Your task to perform on an android device: see tabs open on other devices in the chrome app Image 0: 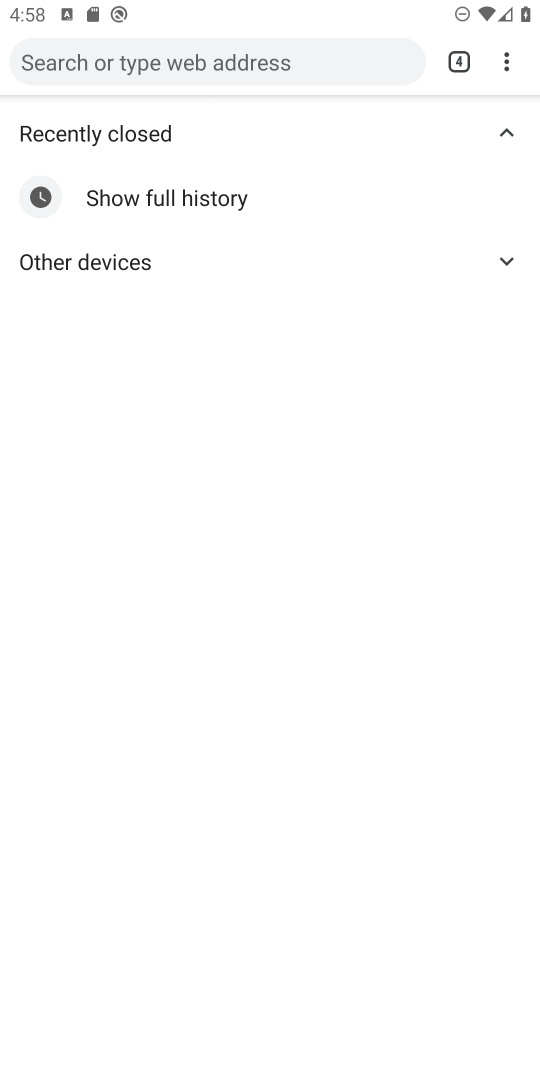
Step 0: press home button
Your task to perform on an android device: see tabs open on other devices in the chrome app Image 1: 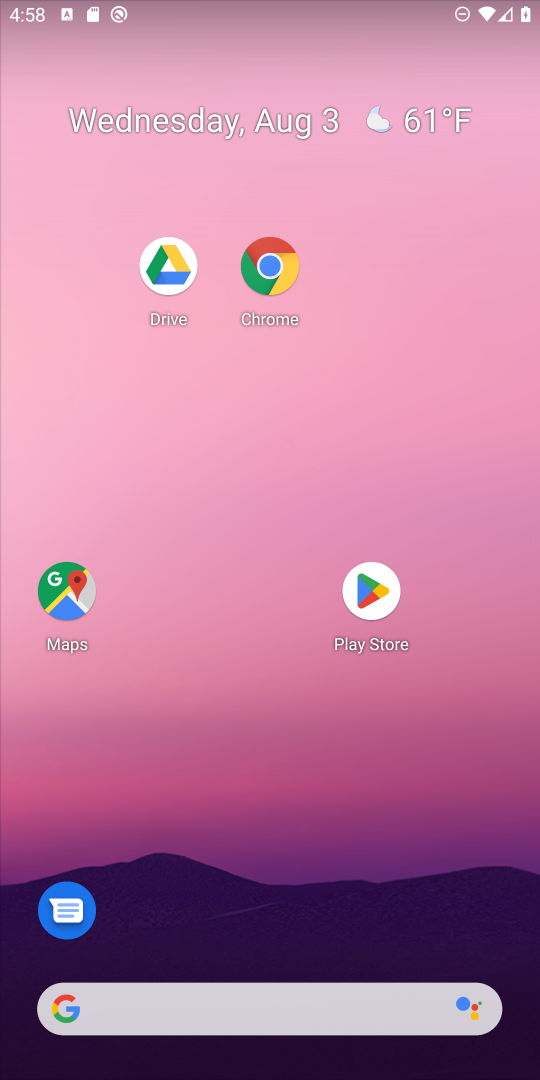
Step 1: drag from (249, 1024) to (461, 0)
Your task to perform on an android device: see tabs open on other devices in the chrome app Image 2: 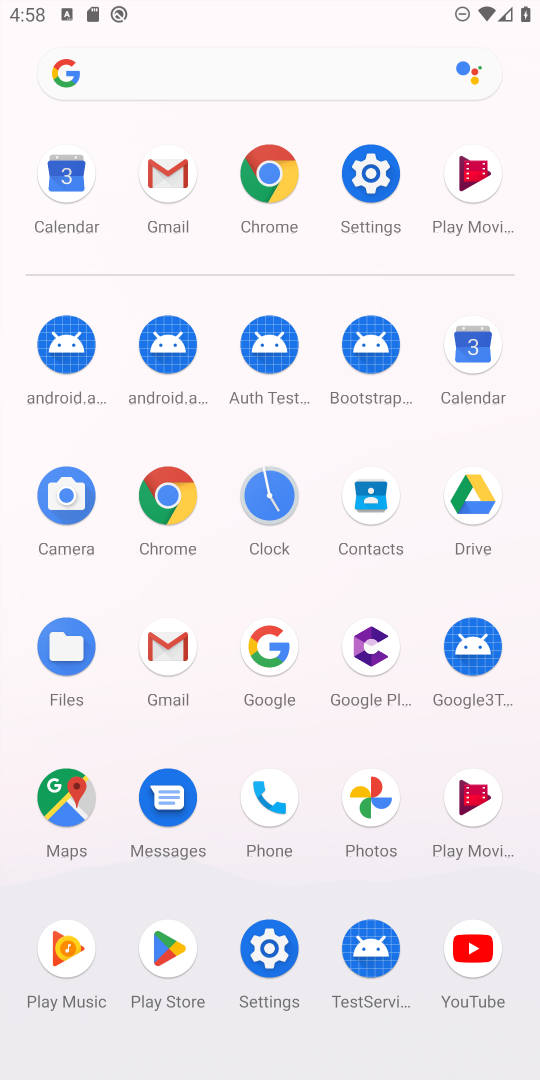
Step 2: click (148, 487)
Your task to perform on an android device: see tabs open on other devices in the chrome app Image 3: 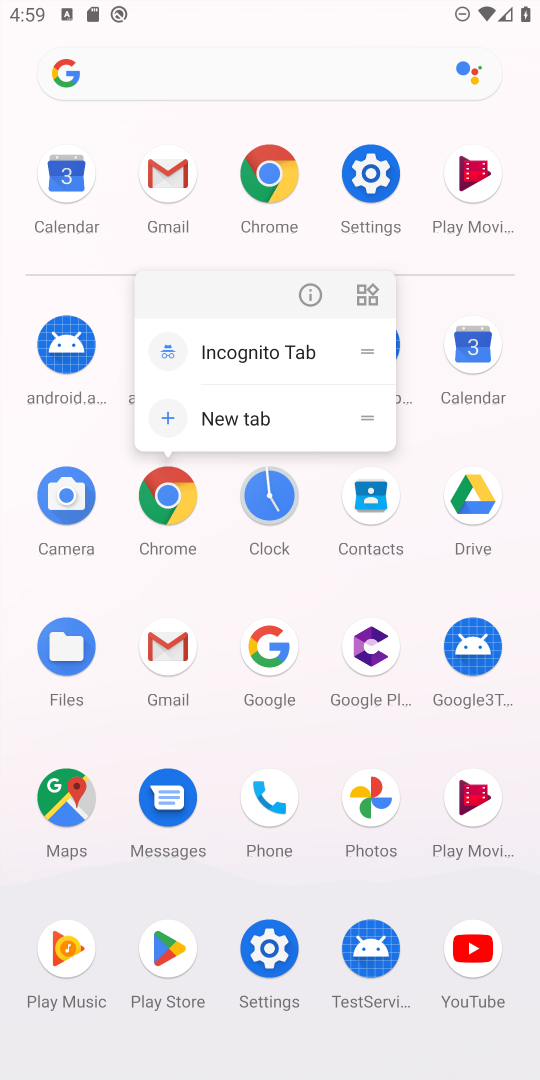
Step 3: click (187, 500)
Your task to perform on an android device: see tabs open on other devices in the chrome app Image 4: 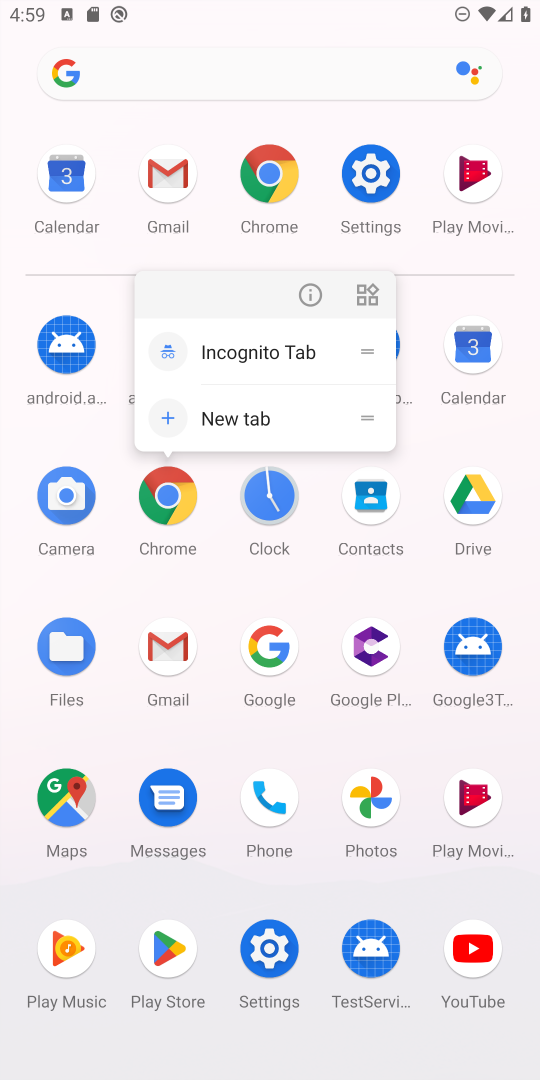
Step 4: click (187, 500)
Your task to perform on an android device: see tabs open on other devices in the chrome app Image 5: 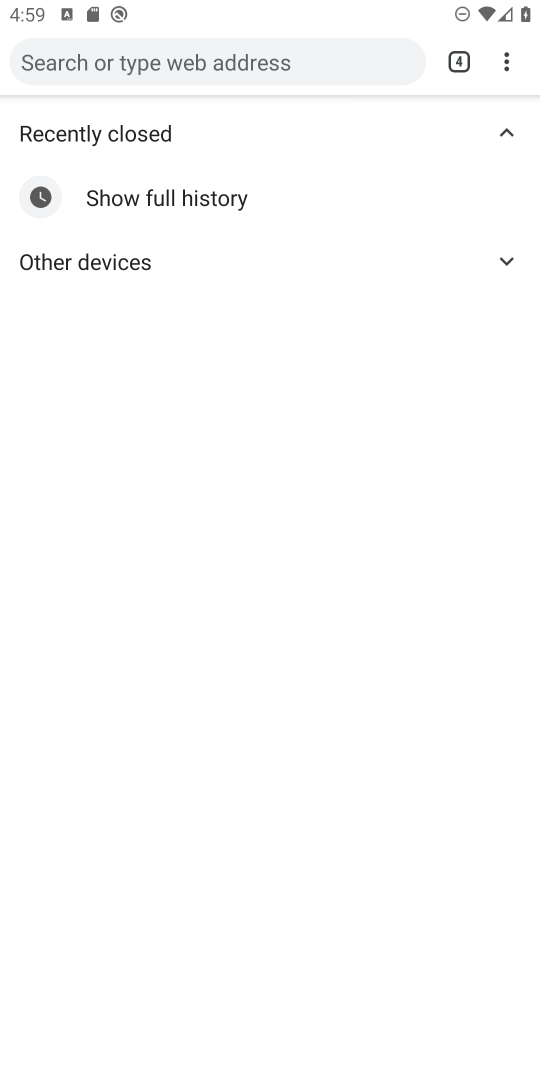
Step 5: task complete